Your task to perform on an android device: Toggle the flashlight Image 0: 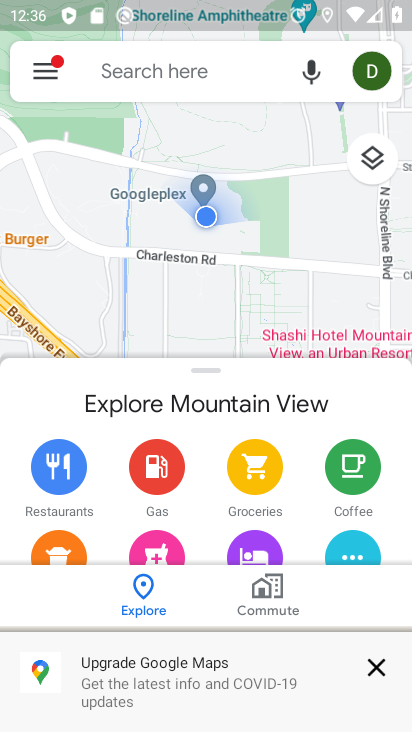
Step 0: press home button
Your task to perform on an android device: Toggle the flashlight Image 1: 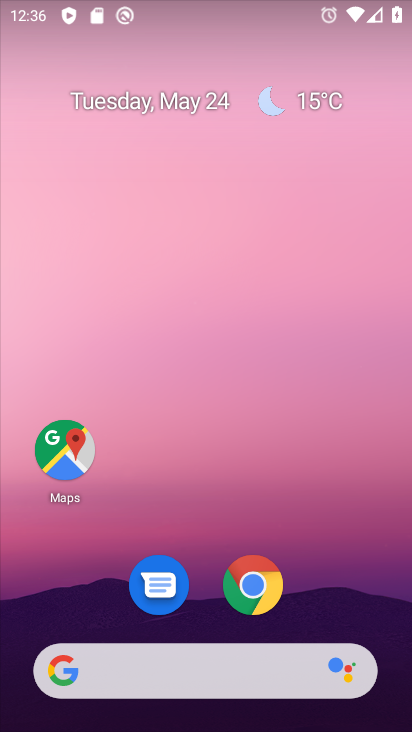
Step 1: drag from (225, 526) to (244, 48)
Your task to perform on an android device: Toggle the flashlight Image 2: 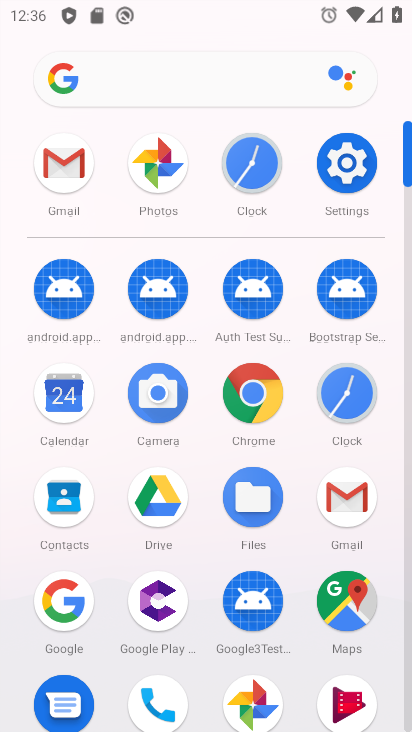
Step 2: click (342, 160)
Your task to perform on an android device: Toggle the flashlight Image 3: 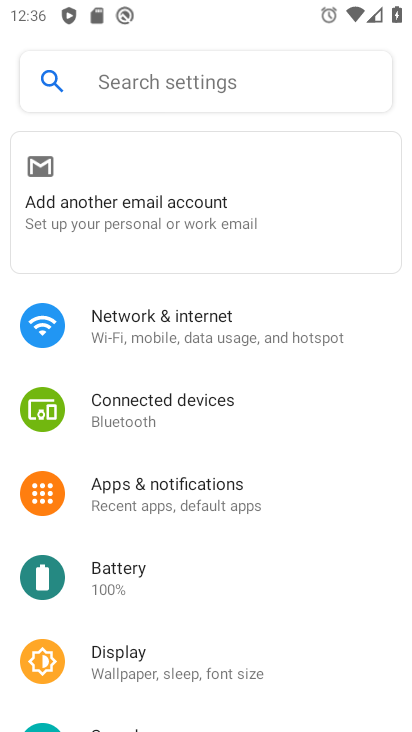
Step 3: drag from (247, 569) to (247, 234)
Your task to perform on an android device: Toggle the flashlight Image 4: 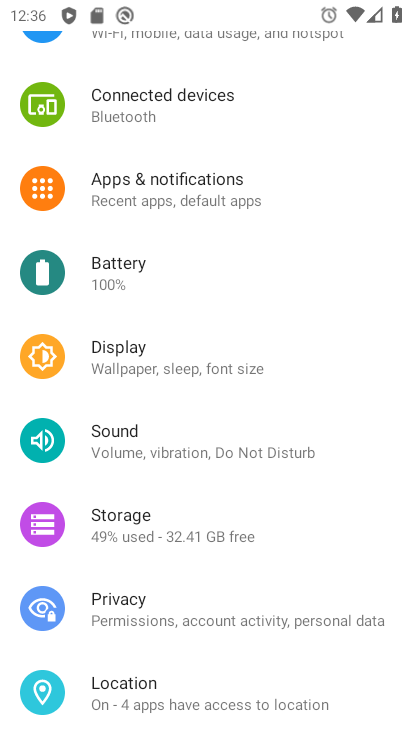
Step 4: drag from (247, 234) to (227, 639)
Your task to perform on an android device: Toggle the flashlight Image 5: 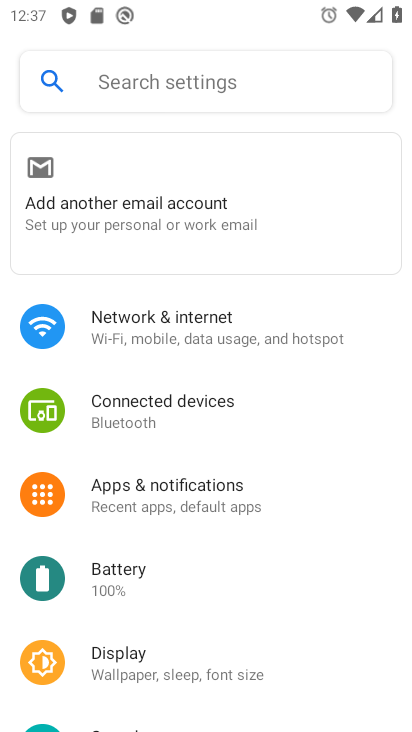
Step 5: click (274, 323)
Your task to perform on an android device: Toggle the flashlight Image 6: 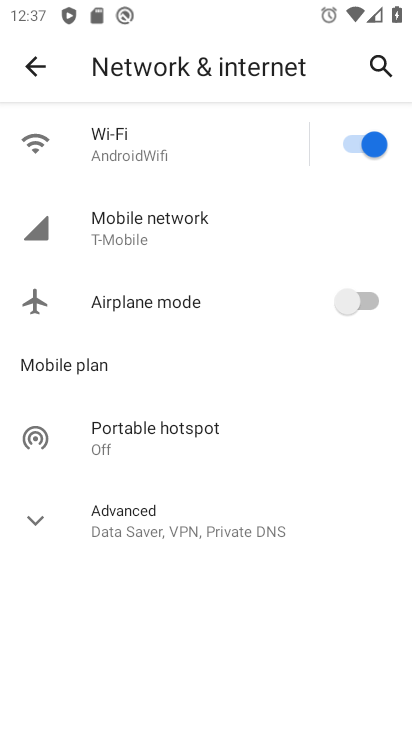
Step 6: drag from (230, 248) to (245, 465)
Your task to perform on an android device: Toggle the flashlight Image 7: 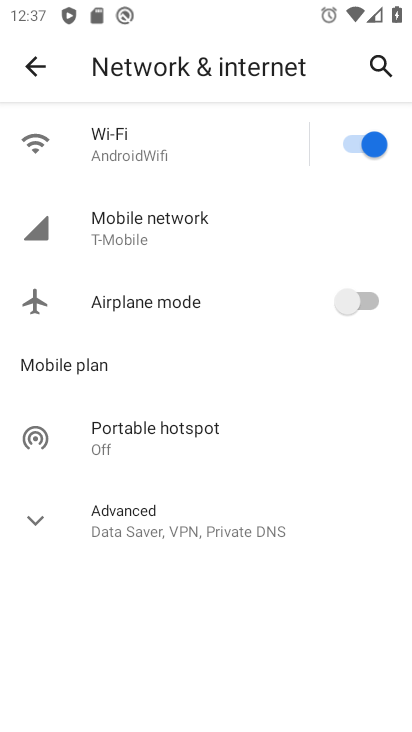
Step 7: click (40, 60)
Your task to perform on an android device: Toggle the flashlight Image 8: 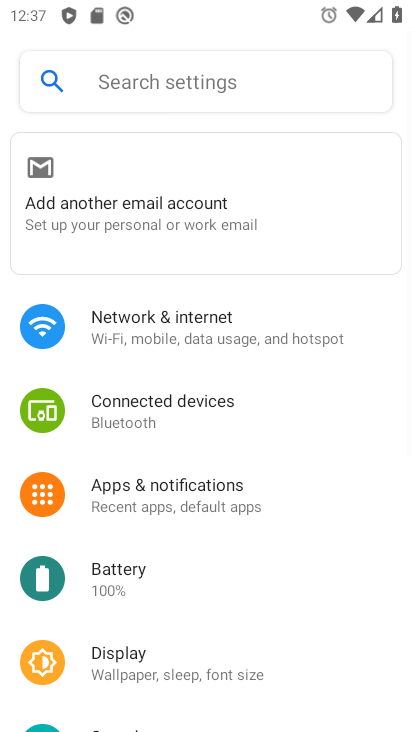
Step 8: click (197, 77)
Your task to perform on an android device: Toggle the flashlight Image 9: 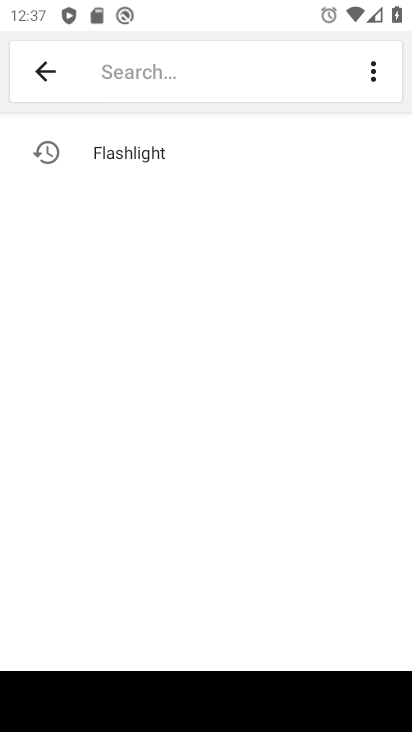
Step 9: click (149, 154)
Your task to perform on an android device: Toggle the flashlight Image 10: 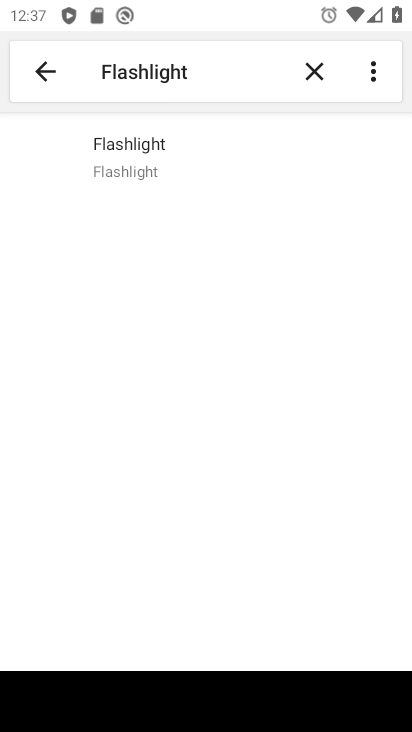
Step 10: click (149, 153)
Your task to perform on an android device: Toggle the flashlight Image 11: 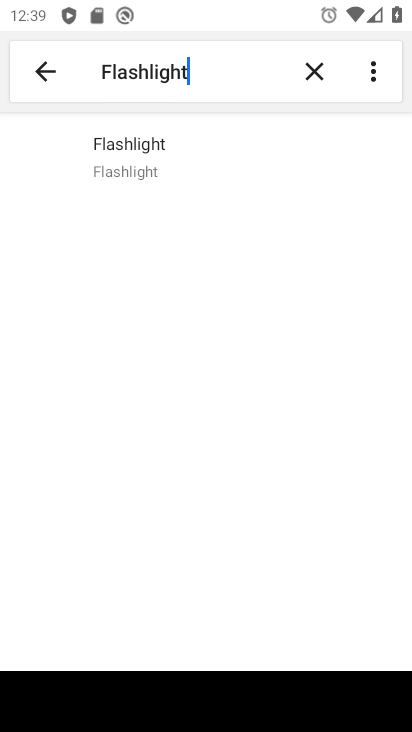
Step 11: task complete